Your task to perform on an android device: Go to Android settings Image 0: 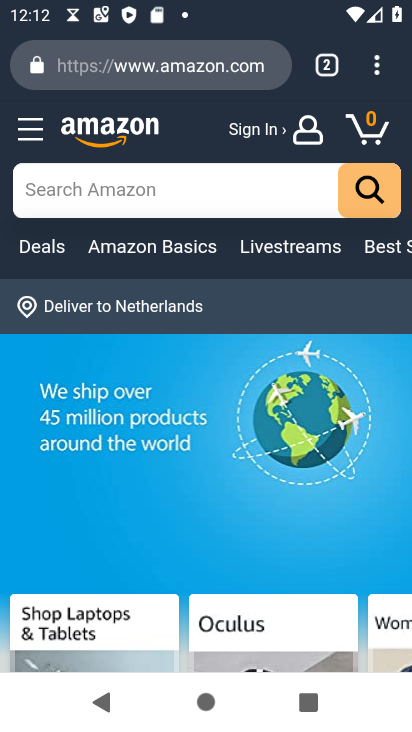
Step 0: press home button
Your task to perform on an android device: Go to Android settings Image 1: 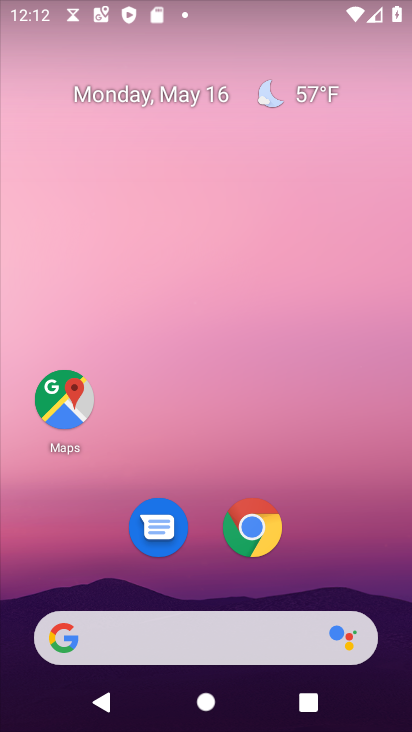
Step 1: drag from (195, 584) to (153, 1)
Your task to perform on an android device: Go to Android settings Image 2: 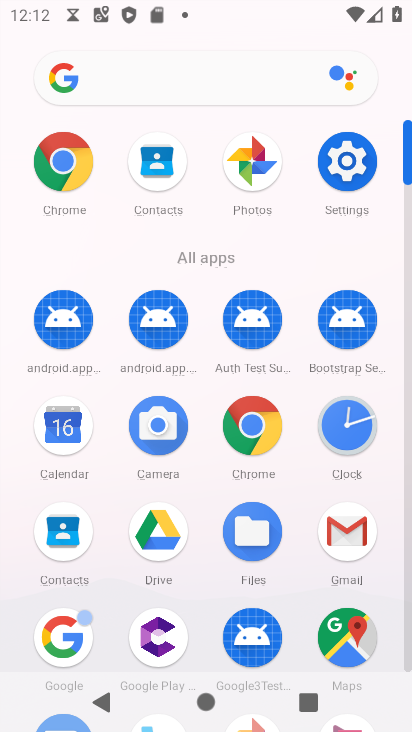
Step 2: click (351, 166)
Your task to perform on an android device: Go to Android settings Image 3: 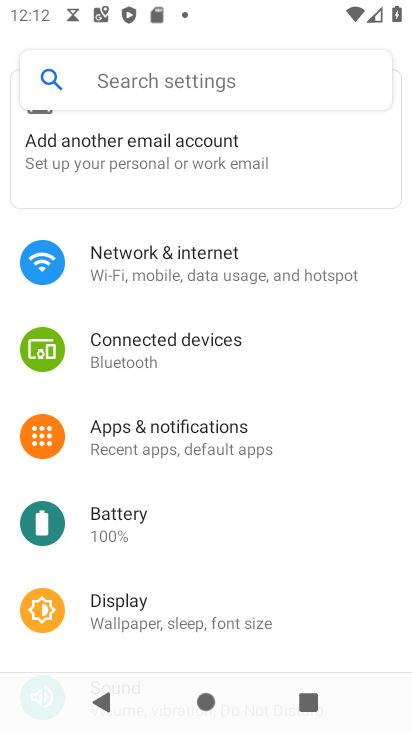
Step 3: task complete